Your task to perform on an android device: toggle notification dots Image 0: 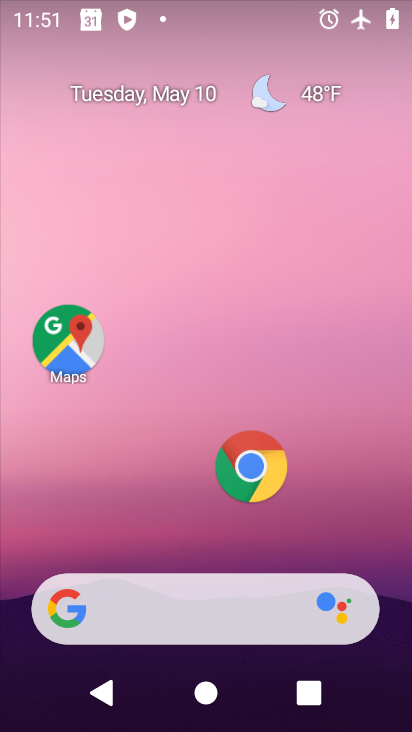
Step 0: drag from (120, 546) to (232, 62)
Your task to perform on an android device: toggle notification dots Image 1: 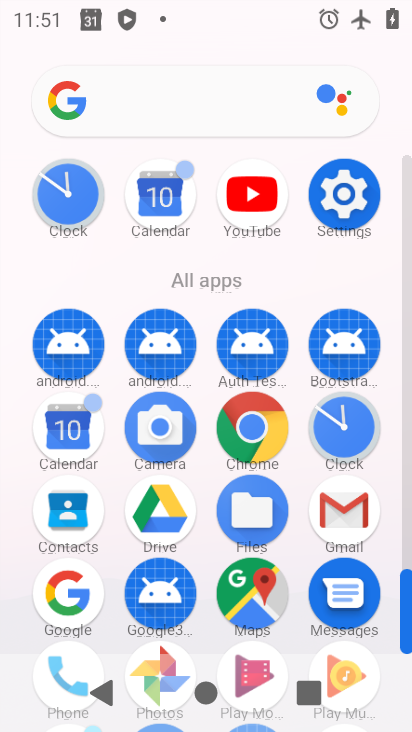
Step 1: click (337, 188)
Your task to perform on an android device: toggle notification dots Image 2: 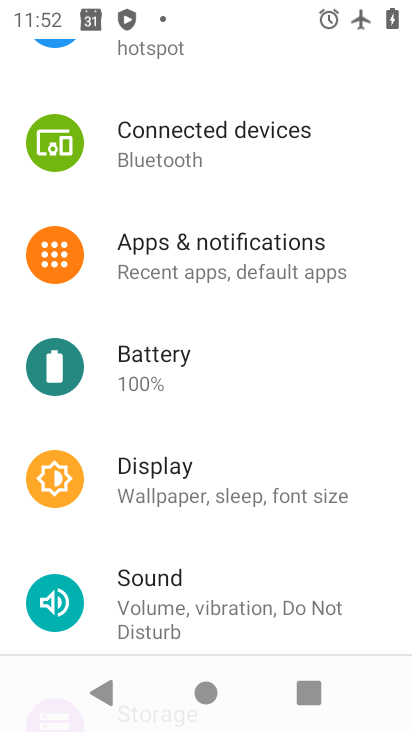
Step 2: click (278, 261)
Your task to perform on an android device: toggle notification dots Image 3: 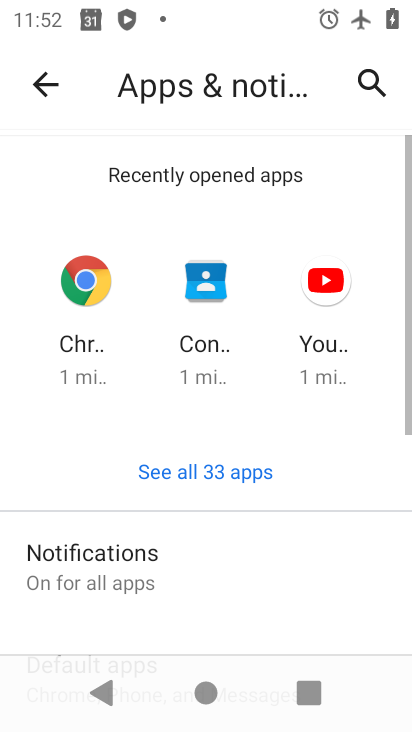
Step 3: drag from (147, 602) to (221, 118)
Your task to perform on an android device: toggle notification dots Image 4: 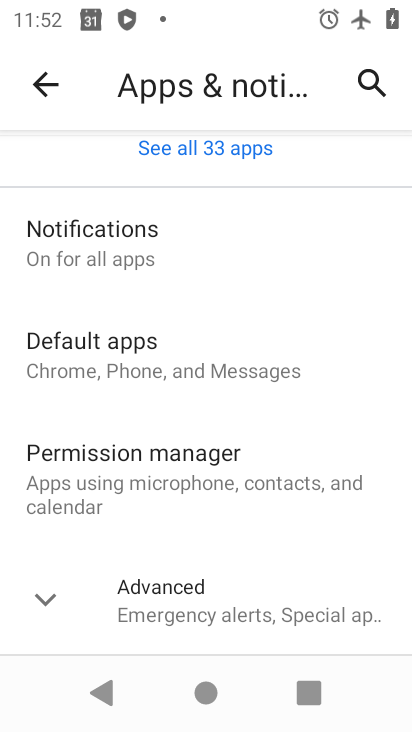
Step 4: click (102, 235)
Your task to perform on an android device: toggle notification dots Image 5: 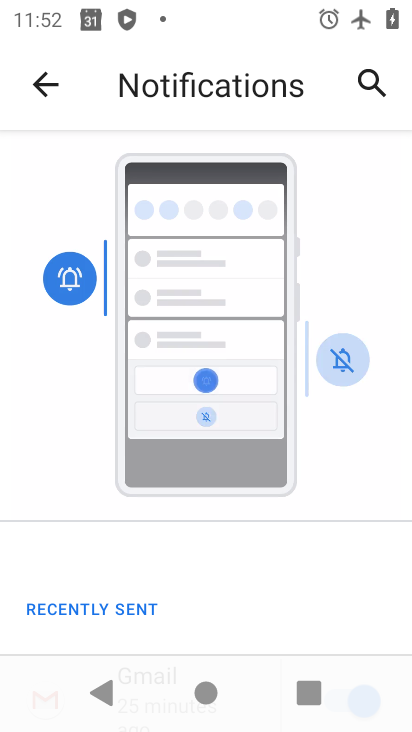
Step 5: drag from (152, 552) to (212, 54)
Your task to perform on an android device: toggle notification dots Image 6: 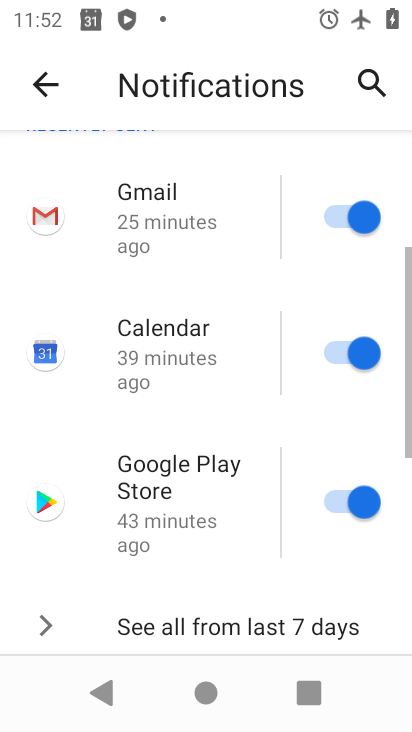
Step 6: drag from (166, 593) to (255, 62)
Your task to perform on an android device: toggle notification dots Image 7: 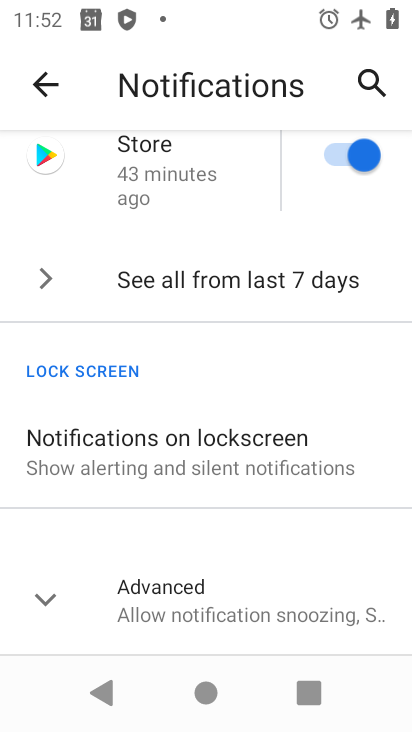
Step 7: click (222, 601)
Your task to perform on an android device: toggle notification dots Image 8: 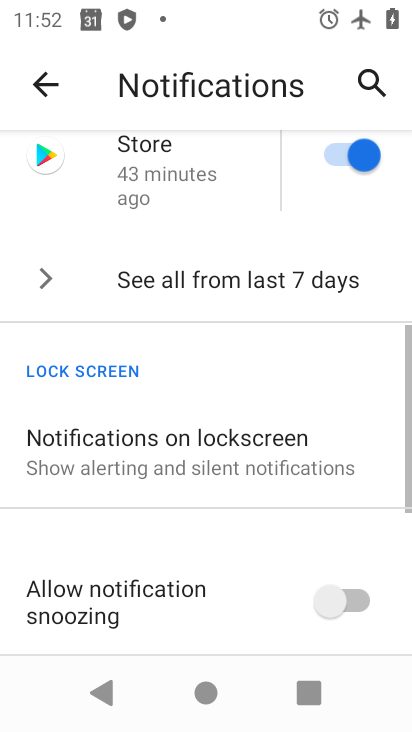
Step 8: drag from (204, 588) to (257, 178)
Your task to perform on an android device: toggle notification dots Image 9: 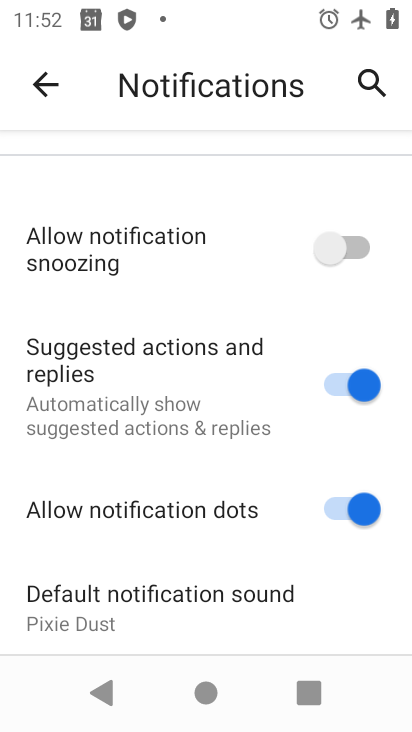
Step 9: click (353, 513)
Your task to perform on an android device: toggle notification dots Image 10: 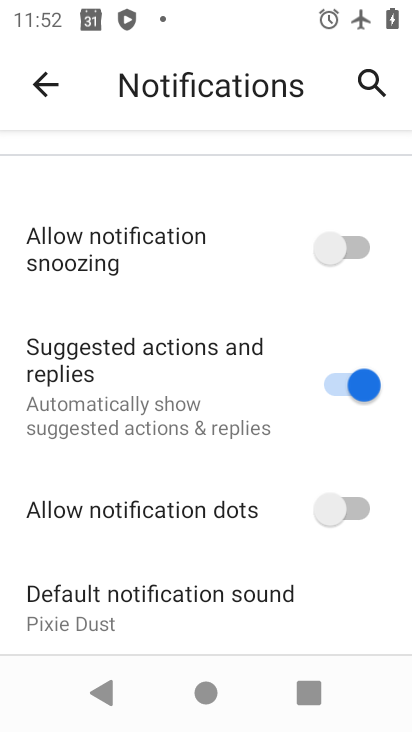
Step 10: task complete